Your task to perform on an android device: find which apps use the phone's location Image 0: 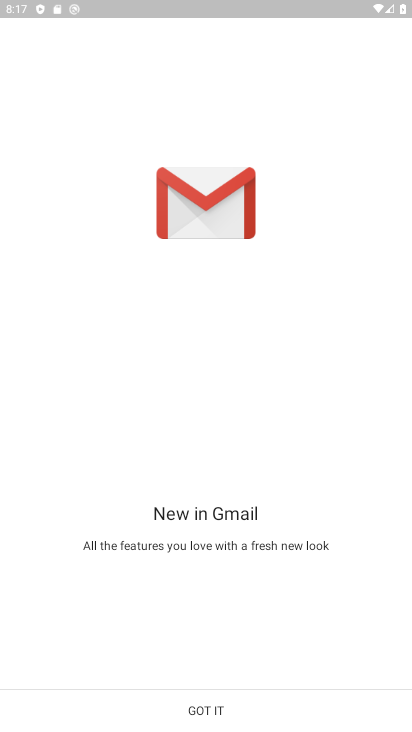
Step 0: task complete